Your task to perform on an android device: Do I have any events tomorrow? Image 0: 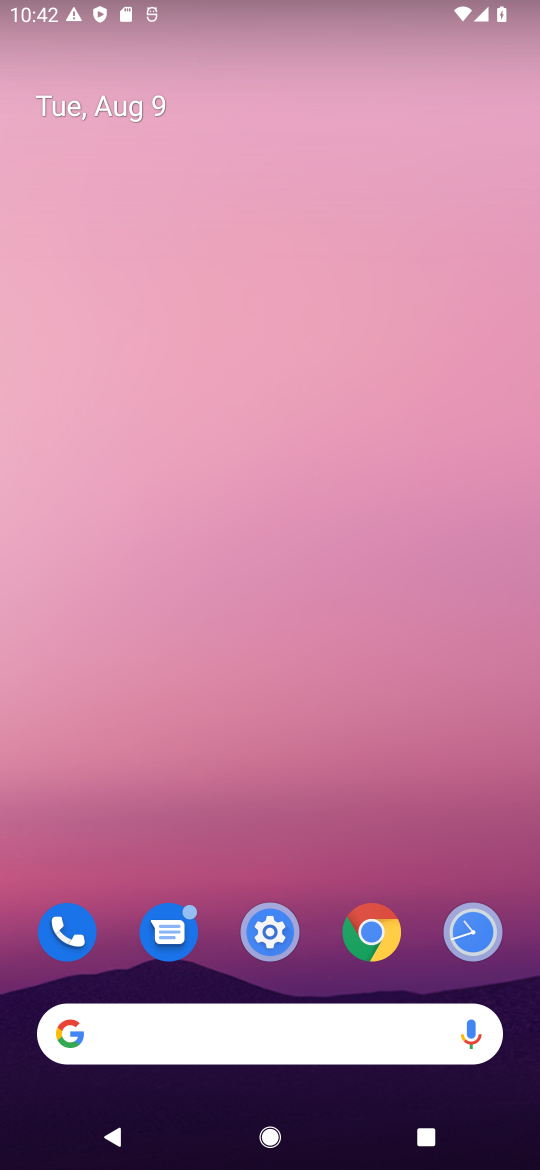
Step 0: drag from (276, 990) to (525, 0)
Your task to perform on an android device: Do I have any events tomorrow? Image 1: 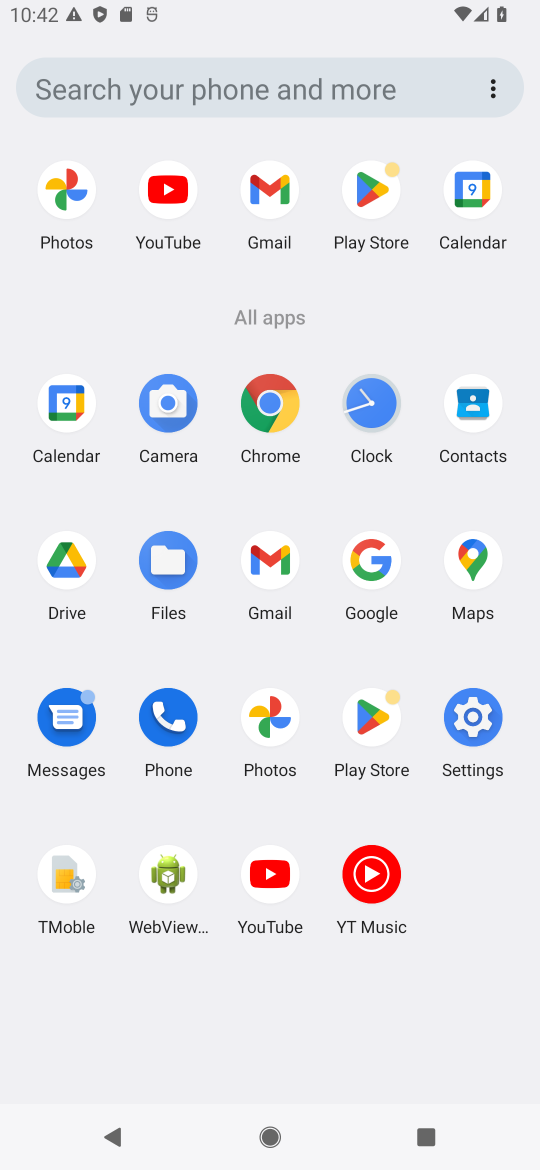
Step 1: click (85, 444)
Your task to perform on an android device: Do I have any events tomorrow? Image 2: 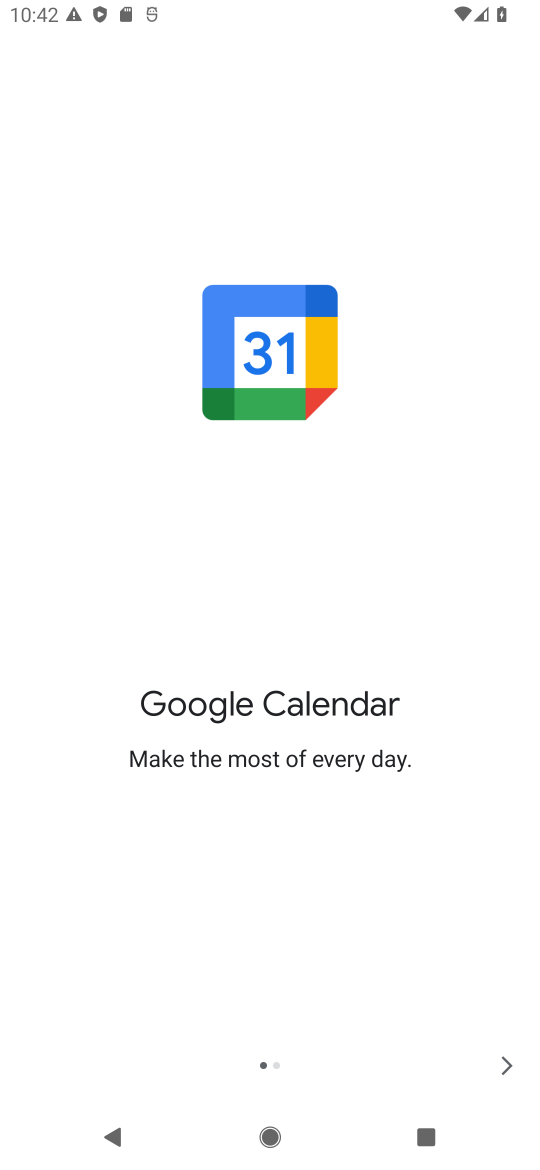
Step 2: click (478, 1052)
Your task to perform on an android device: Do I have any events tomorrow? Image 3: 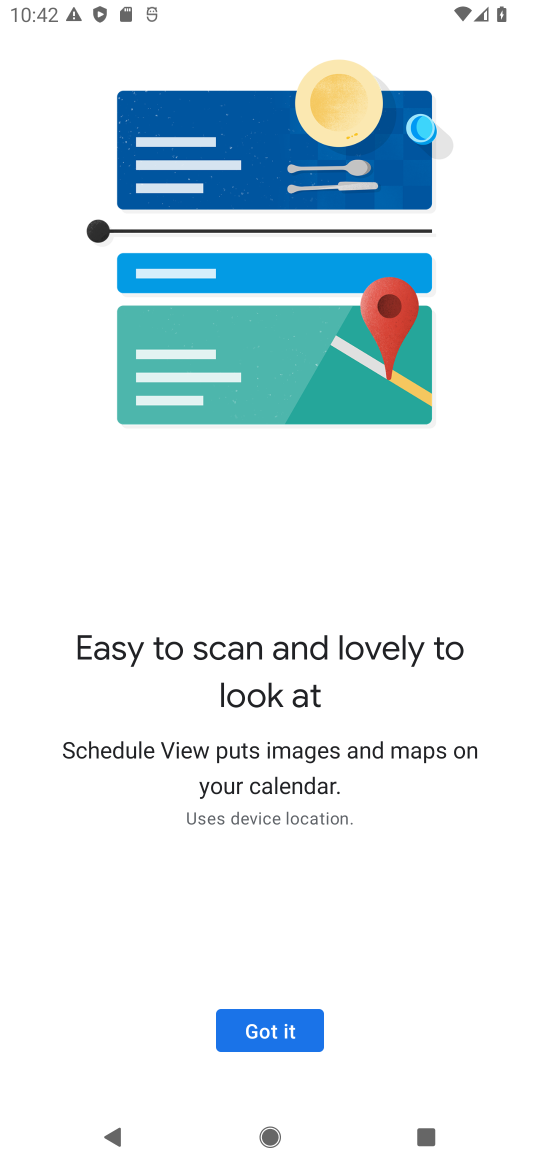
Step 3: click (238, 1032)
Your task to perform on an android device: Do I have any events tomorrow? Image 4: 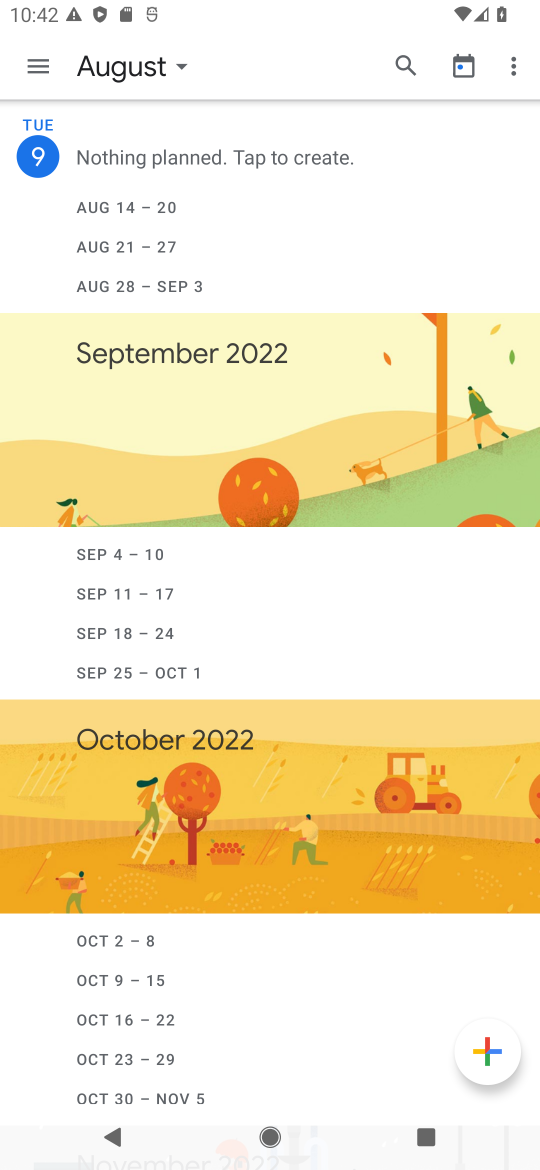
Step 4: click (35, 69)
Your task to perform on an android device: Do I have any events tomorrow? Image 5: 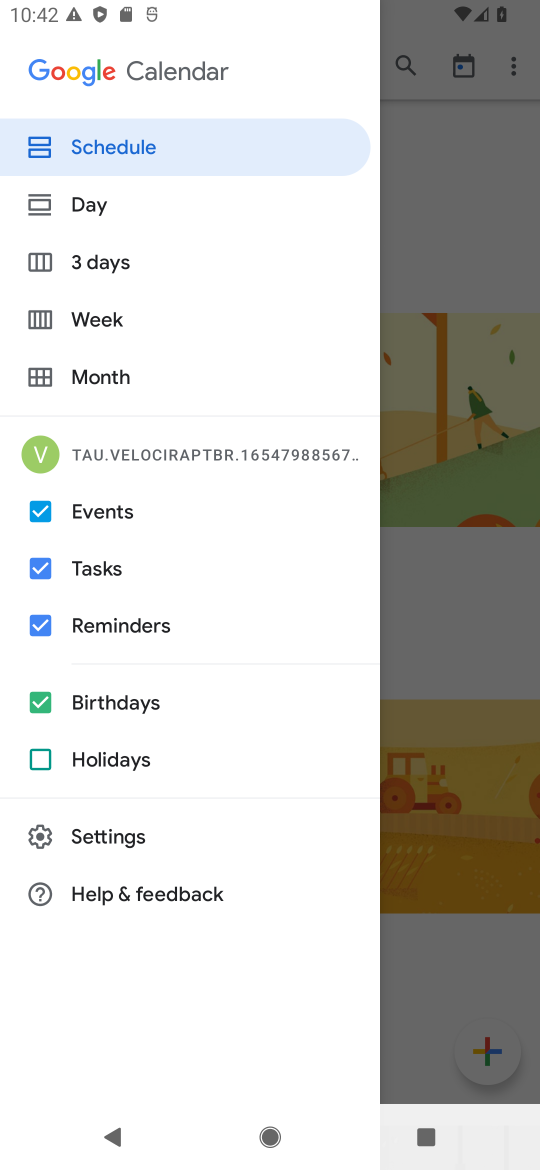
Step 5: click (93, 615)
Your task to perform on an android device: Do I have any events tomorrow? Image 6: 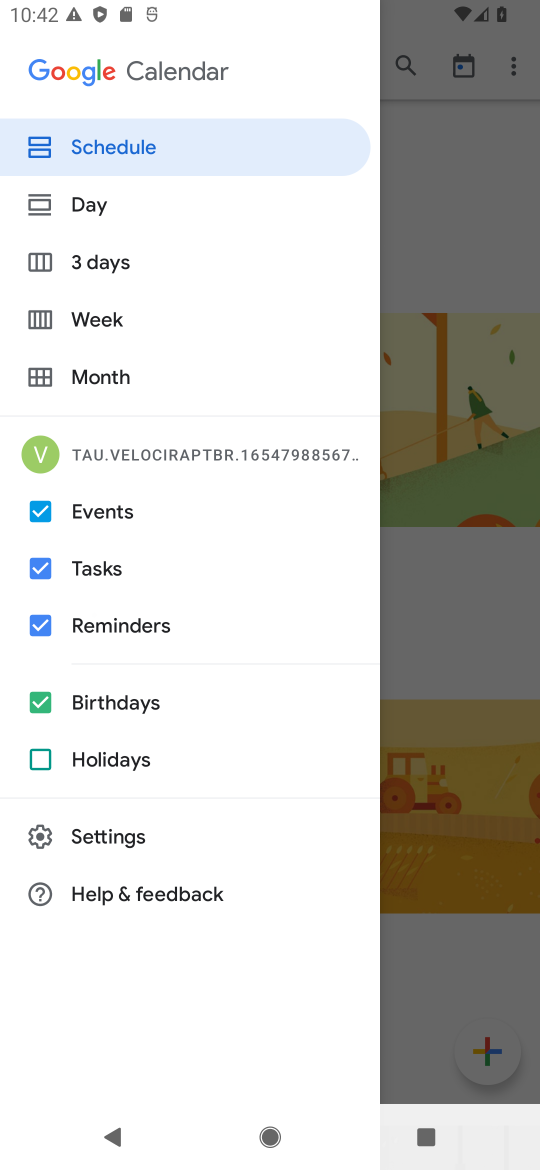
Step 6: click (85, 571)
Your task to perform on an android device: Do I have any events tomorrow? Image 7: 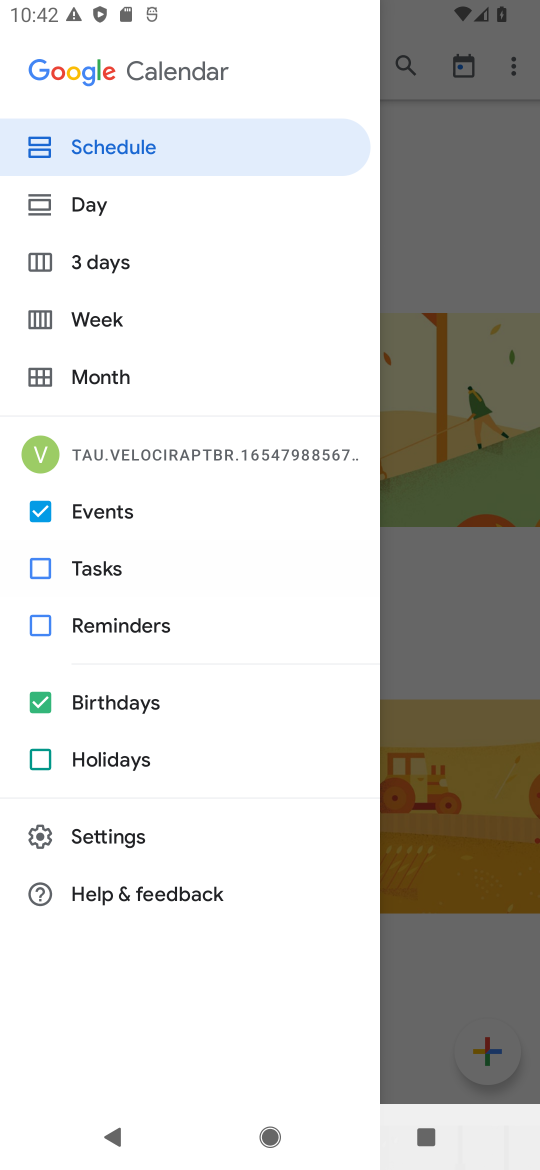
Step 7: click (112, 713)
Your task to perform on an android device: Do I have any events tomorrow? Image 8: 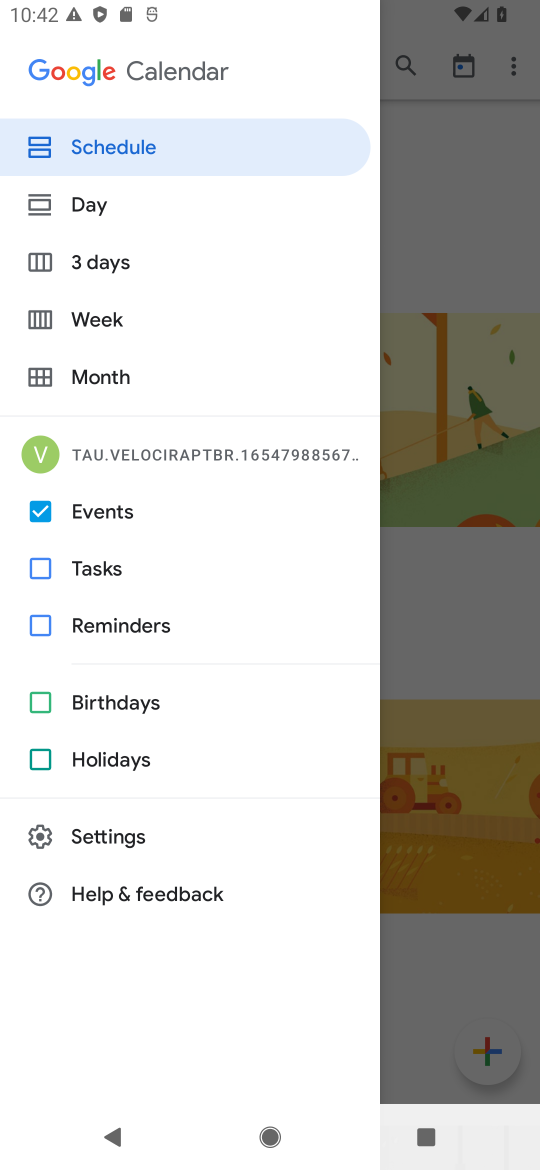
Step 8: click (113, 272)
Your task to perform on an android device: Do I have any events tomorrow? Image 9: 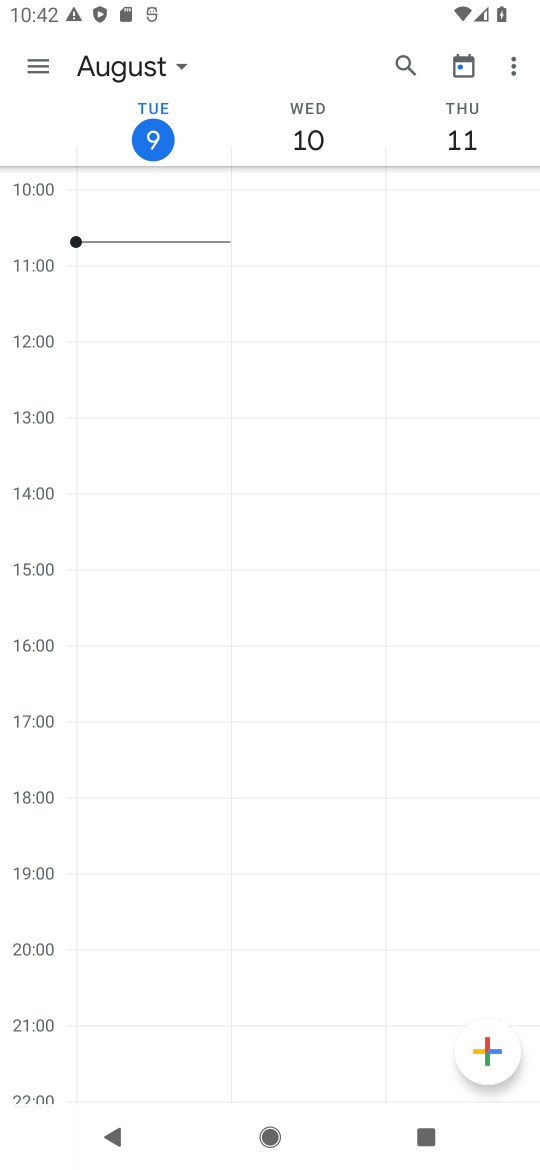
Step 9: click (299, 141)
Your task to perform on an android device: Do I have any events tomorrow? Image 10: 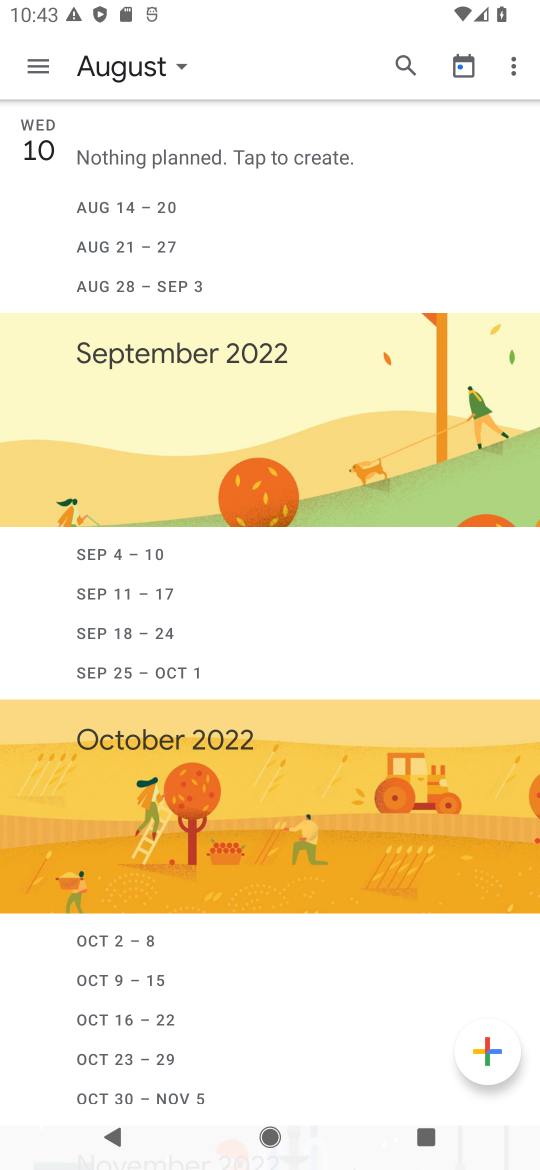
Step 10: task complete